Your task to perform on an android device: toggle translation in the chrome app Image 0: 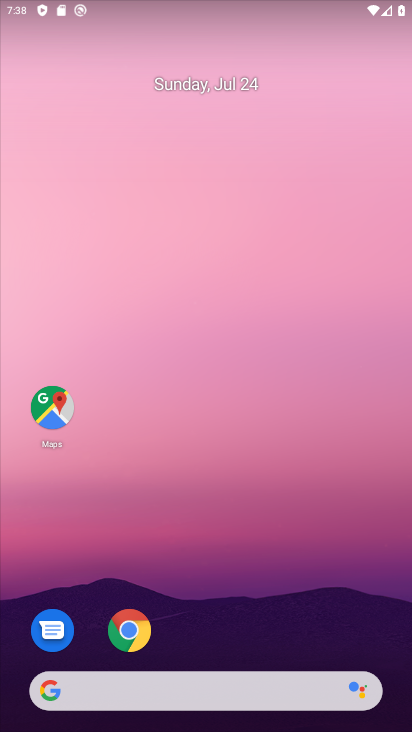
Step 0: click (129, 635)
Your task to perform on an android device: toggle translation in the chrome app Image 1: 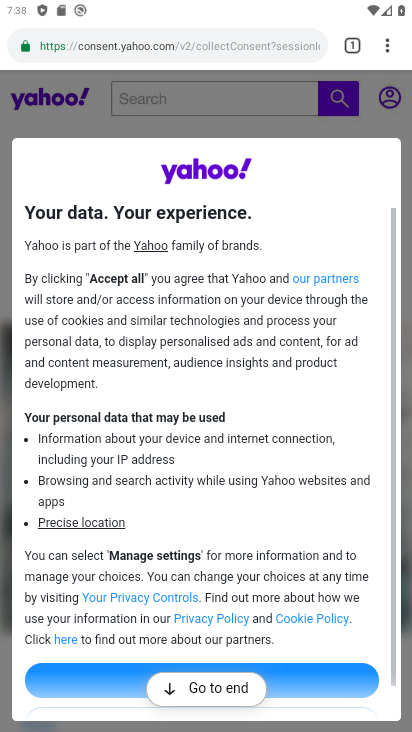
Step 1: click (382, 52)
Your task to perform on an android device: toggle translation in the chrome app Image 2: 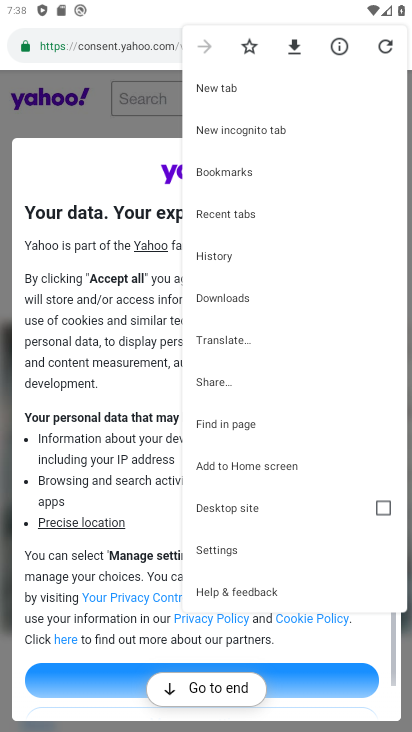
Step 2: click (206, 542)
Your task to perform on an android device: toggle translation in the chrome app Image 3: 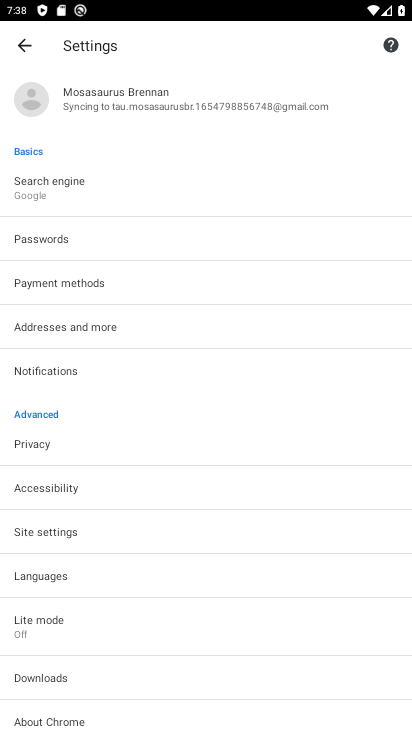
Step 3: click (109, 575)
Your task to perform on an android device: toggle translation in the chrome app Image 4: 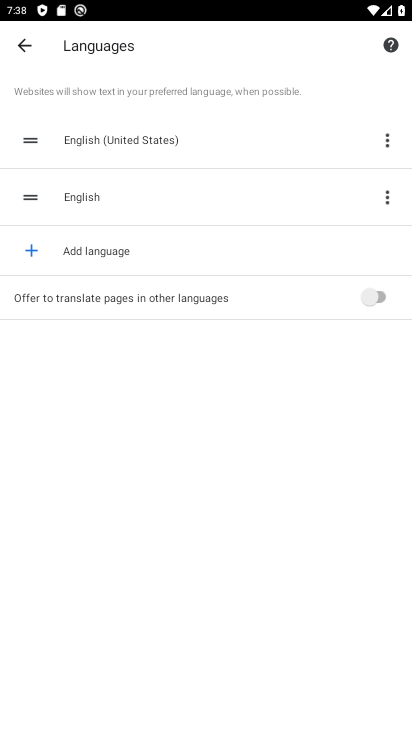
Step 4: click (388, 297)
Your task to perform on an android device: toggle translation in the chrome app Image 5: 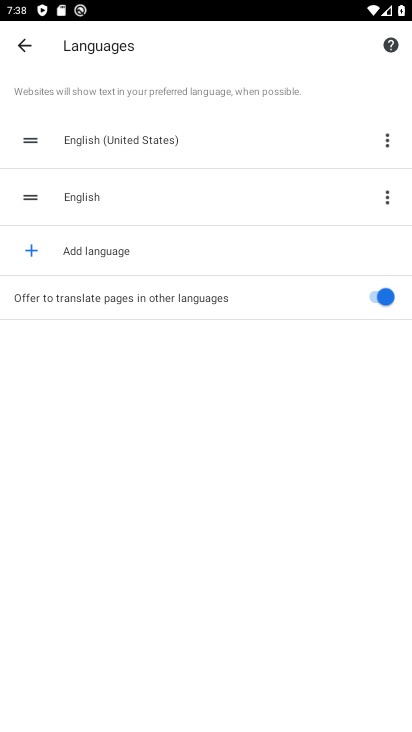
Step 5: task complete